Your task to perform on an android device: Go to display settings Image 0: 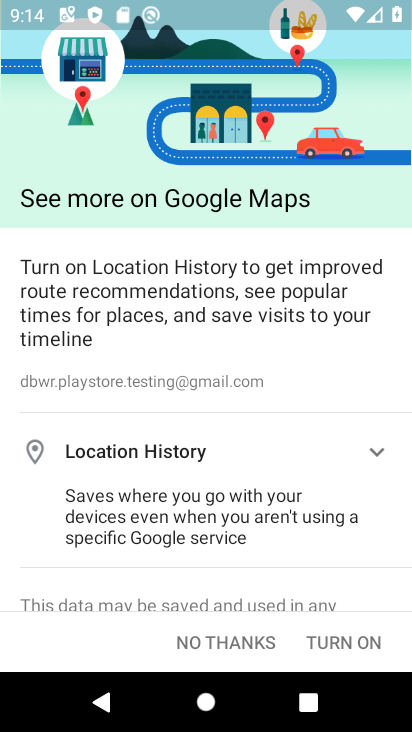
Step 0: press home button
Your task to perform on an android device: Go to display settings Image 1: 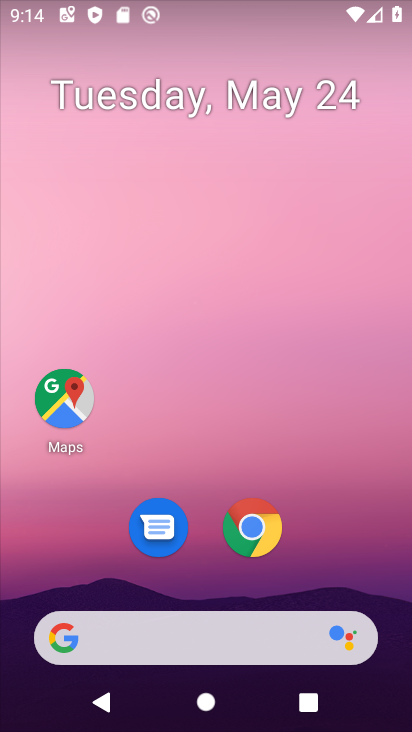
Step 1: drag from (208, 444) to (249, 18)
Your task to perform on an android device: Go to display settings Image 2: 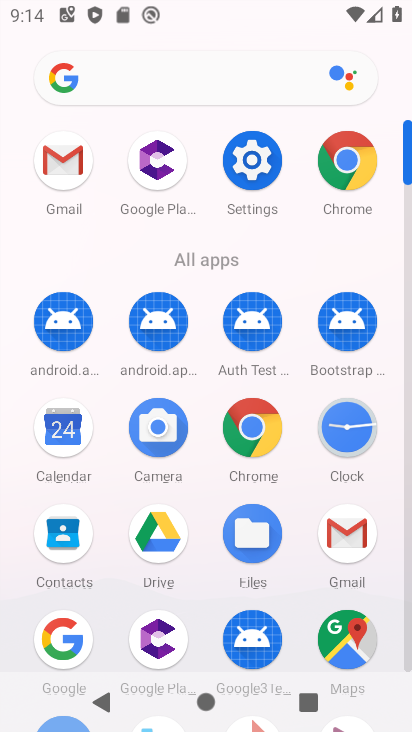
Step 2: click (249, 190)
Your task to perform on an android device: Go to display settings Image 3: 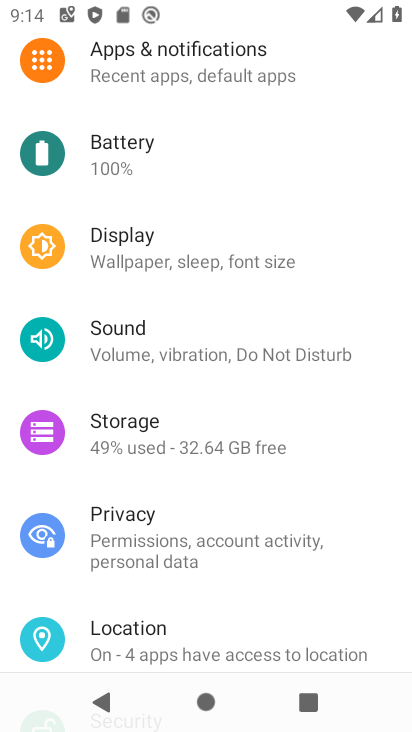
Step 3: click (173, 255)
Your task to perform on an android device: Go to display settings Image 4: 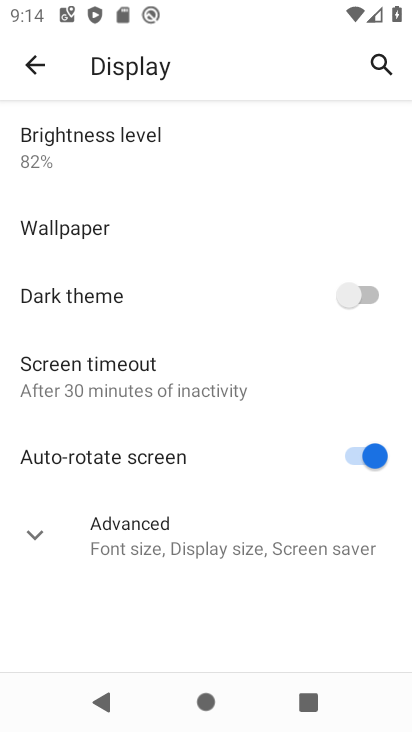
Step 4: task complete